Your task to perform on an android device: allow notifications from all sites in the chrome app Image 0: 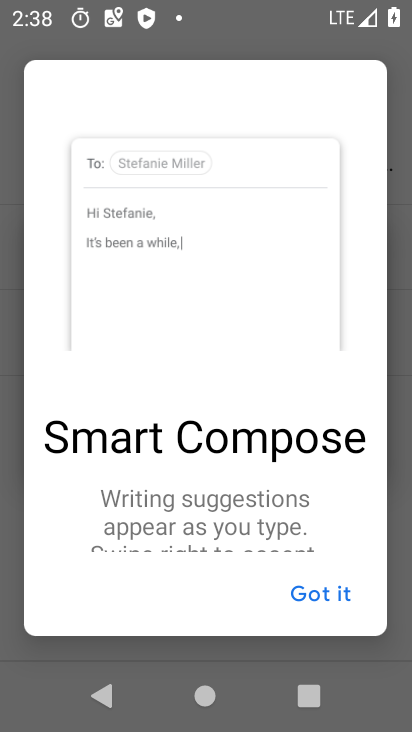
Step 0: press home button
Your task to perform on an android device: allow notifications from all sites in the chrome app Image 1: 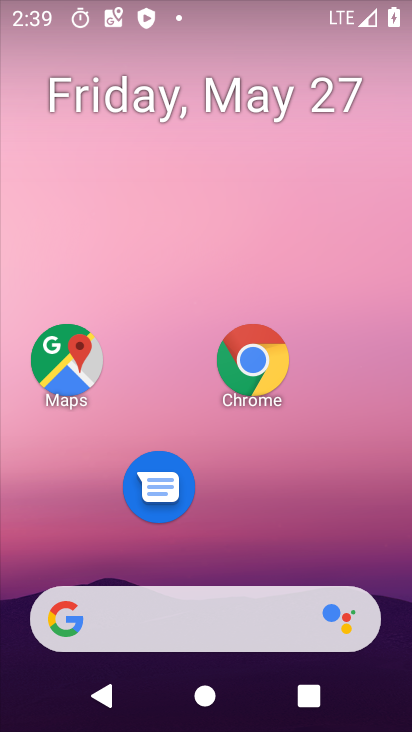
Step 1: drag from (274, 502) to (312, 52)
Your task to perform on an android device: allow notifications from all sites in the chrome app Image 2: 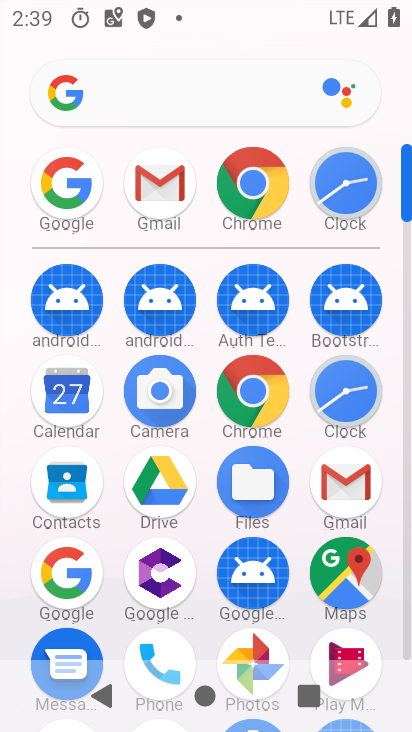
Step 2: click (257, 180)
Your task to perform on an android device: allow notifications from all sites in the chrome app Image 3: 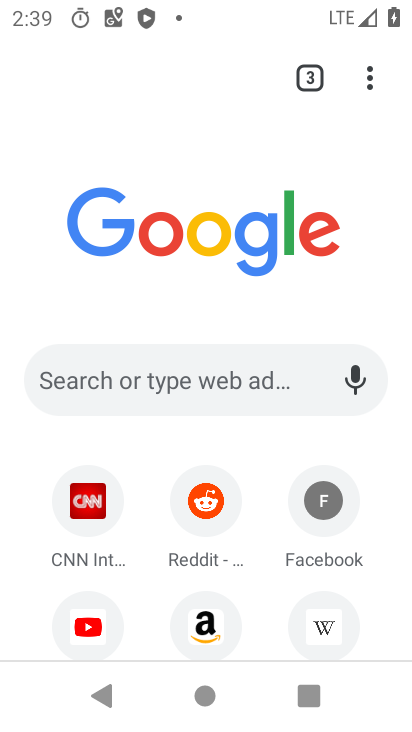
Step 3: click (363, 81)
Your task to perform on an android device: allow notifications from all sites in the chrome app Image 4: 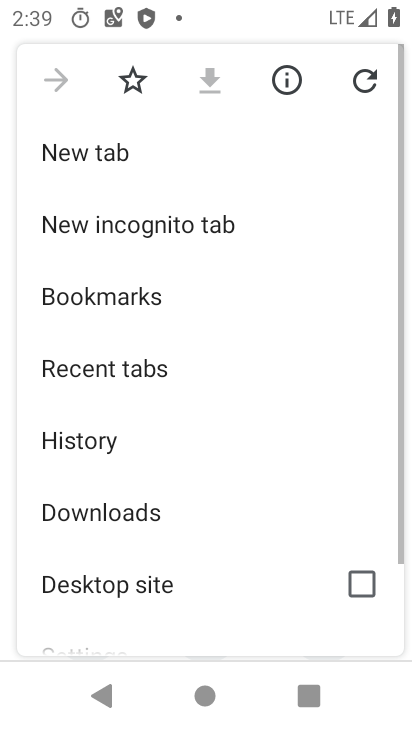
Step 4: drag from (266, 556) to (251, 74)
Your task to perform on an android device: allow notifications from all sites in the chrome app Image 5: 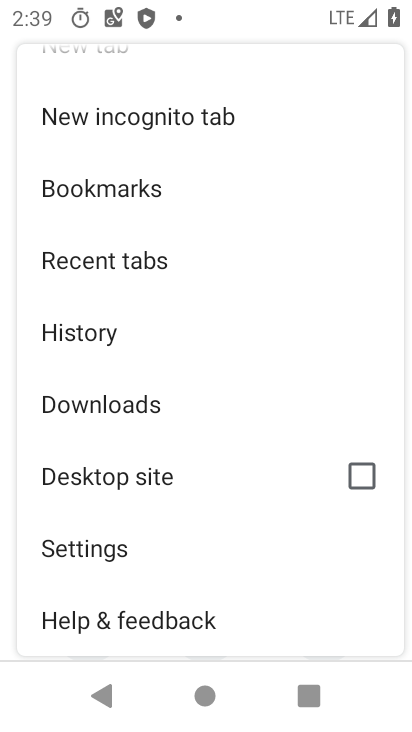
Step 5: click (83, 541)
Your task to perform on an android device: allow notifications from all sites in the chrome app Image 6: 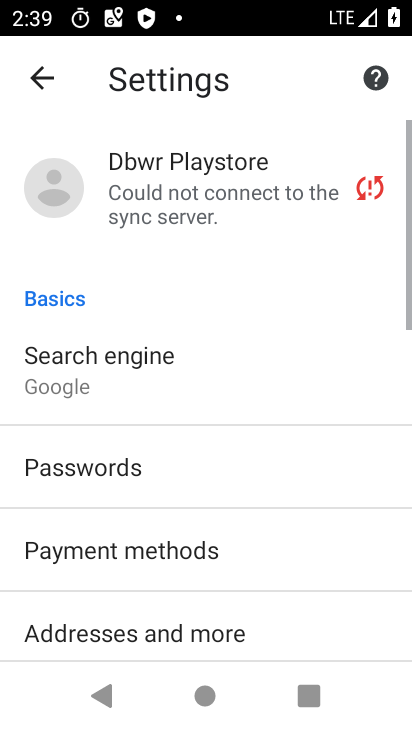
Step 6: drag from (246, 467) to (214, 57)
Your task to perform on an android device: allow notifications from all sites in the chrome app Image 7: 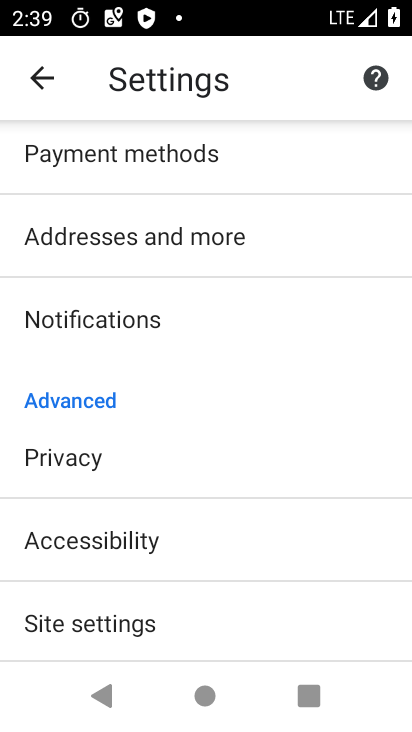
Step 7: click (130, 620)
Your task to perform on an android device: allow notifications from all sites in the chrome app Image 8: 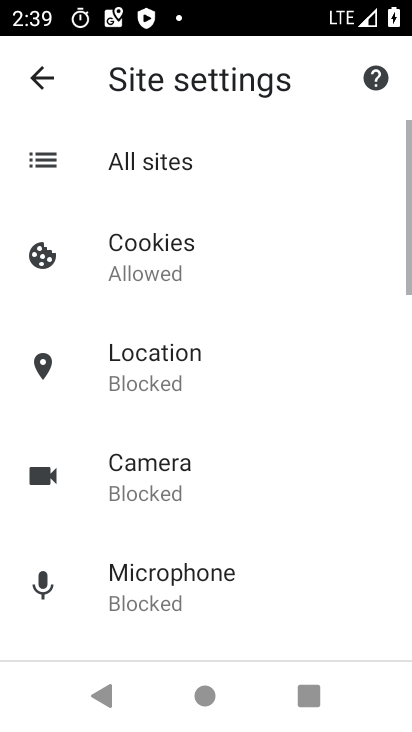
Step 8: drag from (189, 548) to (225, 163)
Your task to perform on an android device: allow notifications from all sites in the chrome app Image 9: 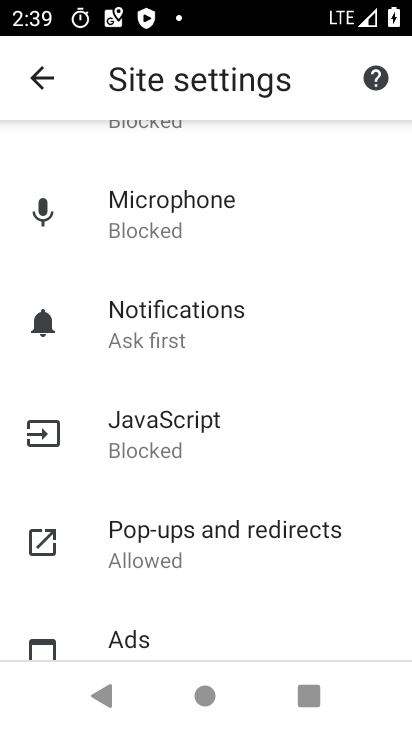
Step 9: click (150, 341)
Your task to perform on an android device: allow notifications from all sites in the chrome app Image 10: 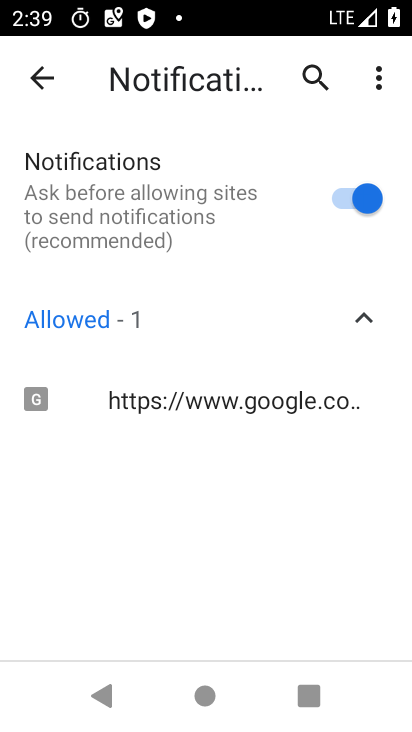
Step 10: task complete